Your task to perform on an android device: add a contact in the contacts app Image 0: 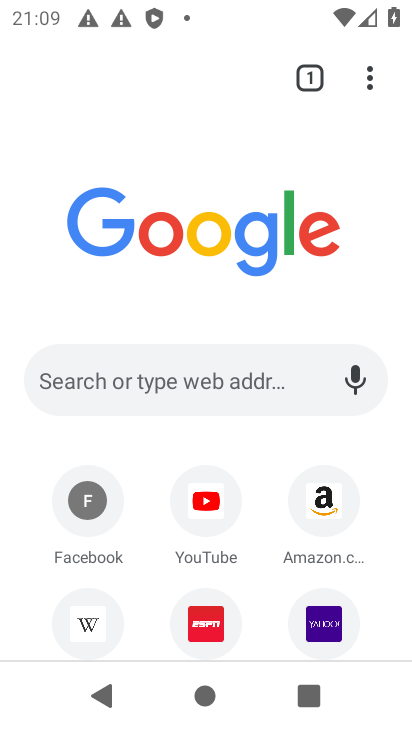
Step 0: press home button
Your task to perform on an android device: add a contact in the contacts app Image 1: 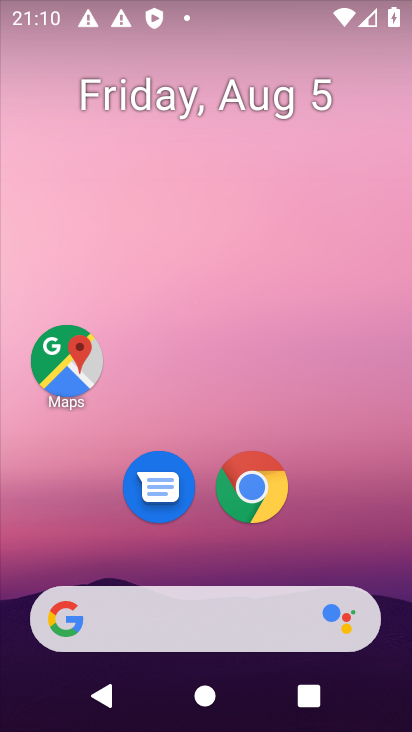
Step 1: drag from (217, 573) to (192, 37)
Your task to perform on an android device: add a contact in the contacts app Image 2: 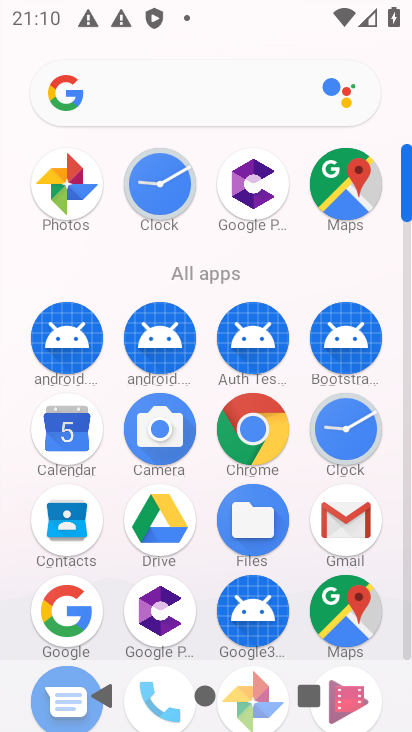
Step 2: drag from (119, 575) to (94, 180)
Your task to perform on an android device: add a contact in the contacts app Image 3: 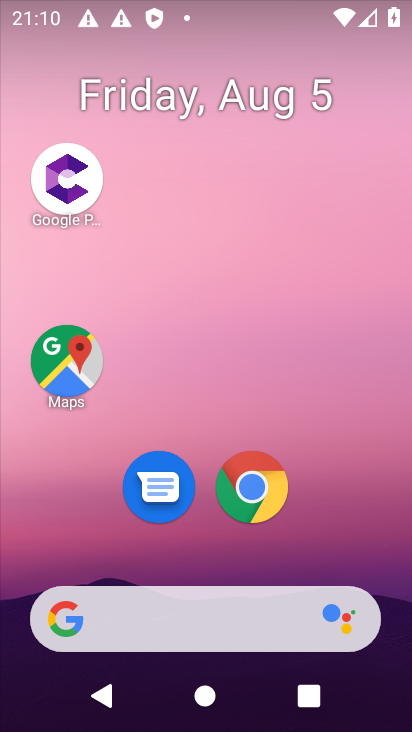
Step 3: drag from (228, 560) to (166, 3)
Your task to perform on an android device: add a contact in the contacts app Image 4: 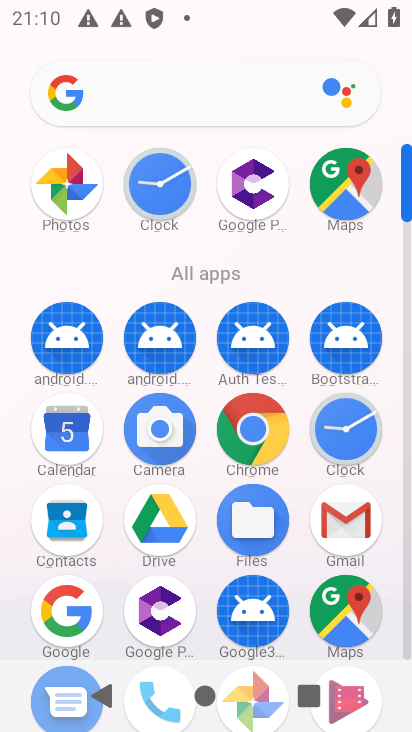
Step 4: click (95, 521)
Your task to perform on an android device: add a contact in the contacts app Image 5: 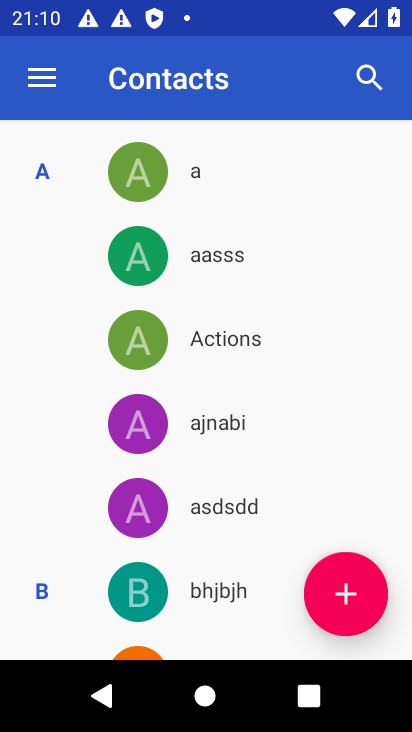
Step 5: click (358, 614)
Your task to perform on an android device: add a contact in the contacts app Image 6: 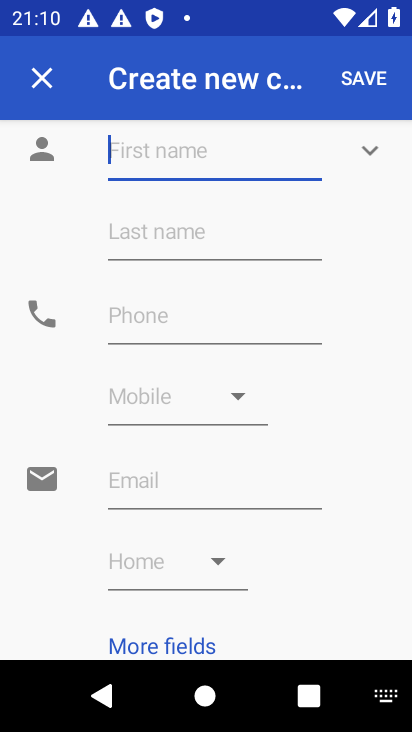
Step 6: type "hgg"
Your task to perform on an android device: add a contact in the contacts app Image 7: 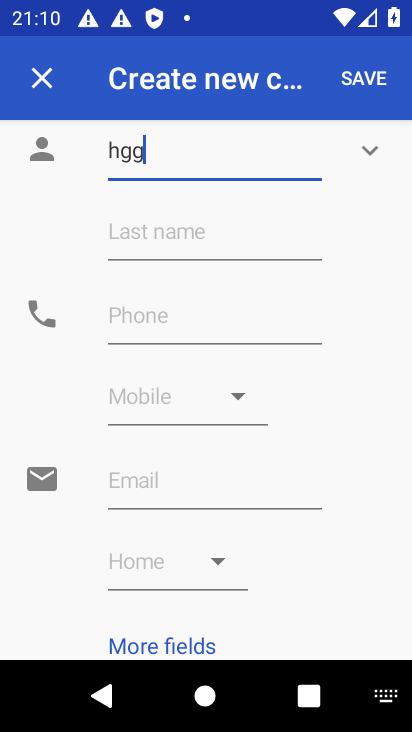
Step 7: click (182, 341)
Your task to perform on an android device: add a contact in the contacts app Image 8: 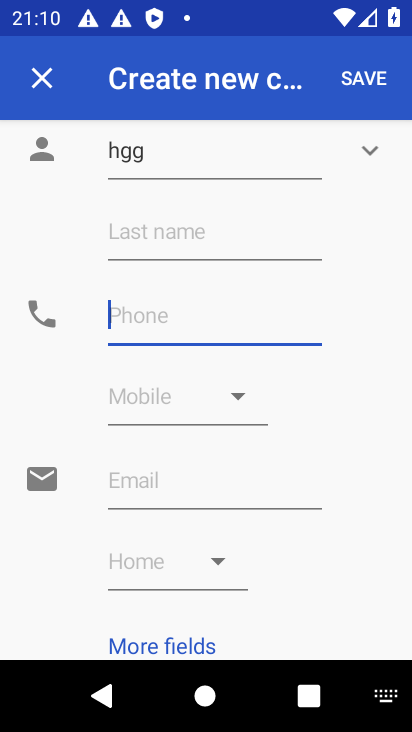
Step 8: type "866"
Your task to perform on an android device: add a contact in the contacts app Image 9: 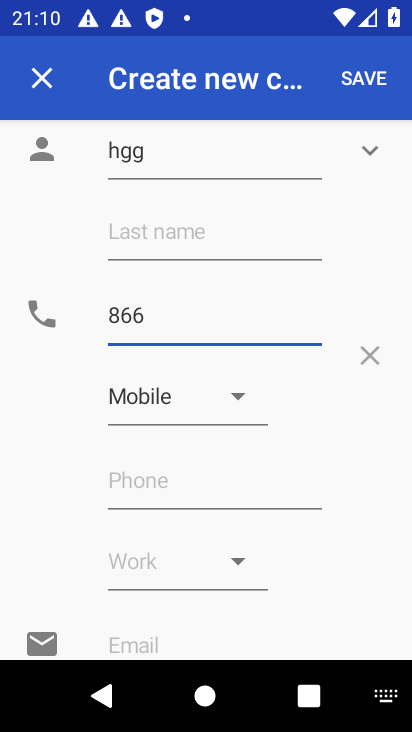
Step 9: click (367, 89)
Your task to perform on an android device: add a contact in the contacts app Image 10: 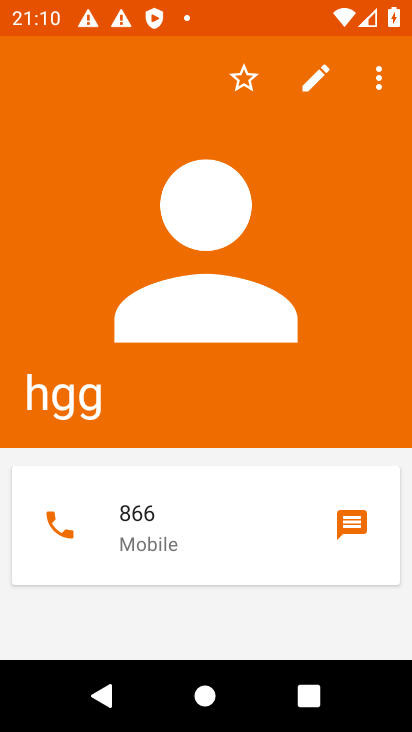
Step 10: task complete